Your task to perform on an android device: toggle translation in the chrome app Image 0: 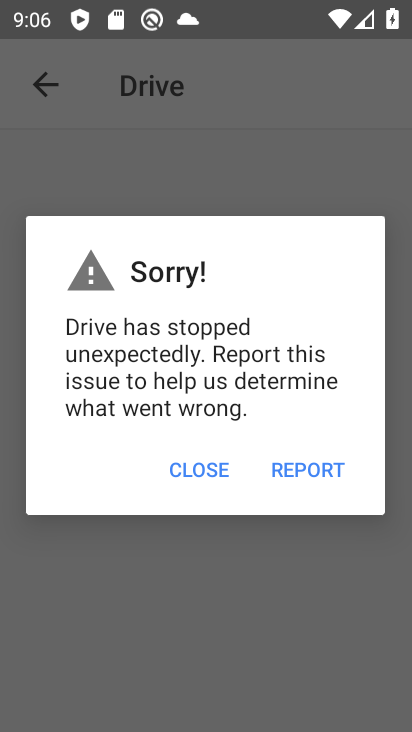
Step 0: press home button
Your task to perform on an android device: toggle translation in the chrome app Image 1: 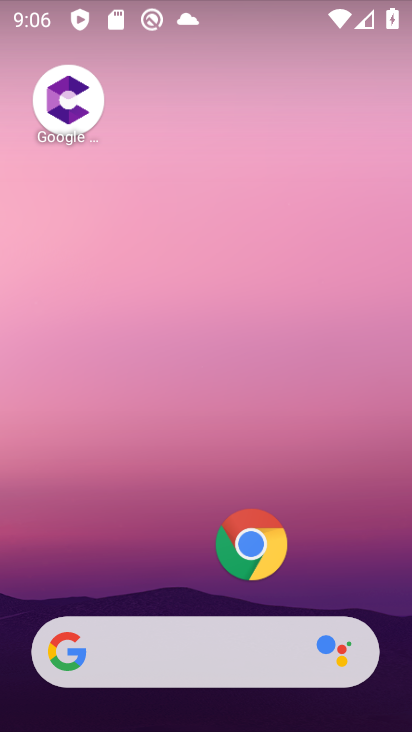
Step 1: click (257, 545)
Your task to perform on an android device: toggle translation in the chrome app Image 2: 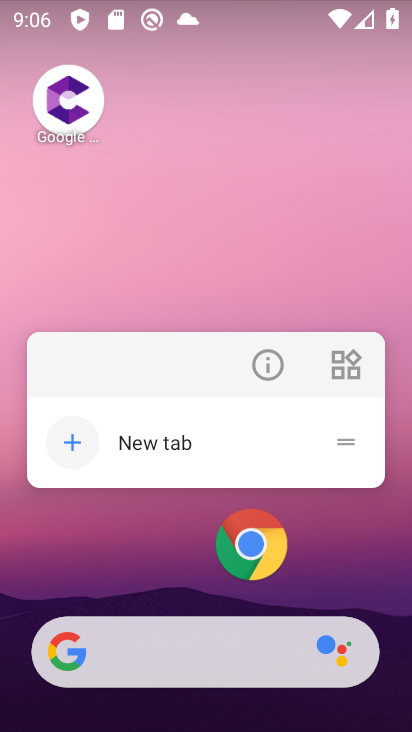
Step 2: click (255, 555)
Your task to perform on an android device: toggle translation in the chrome app Image 3: 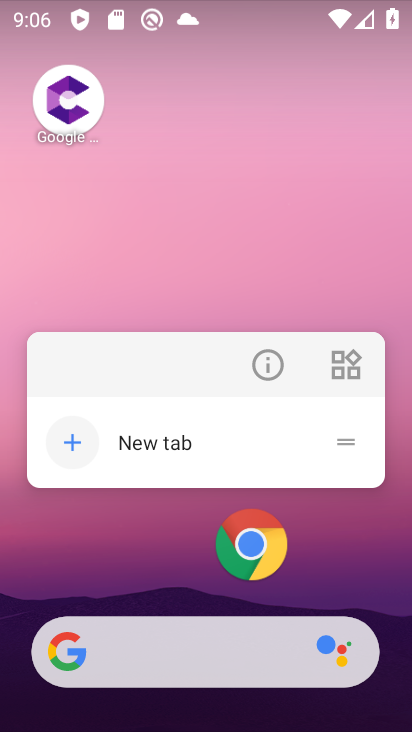
Step 3: click (246, 549)
Your task to perform on an android device: toggle translation in the chrome app Image 4: 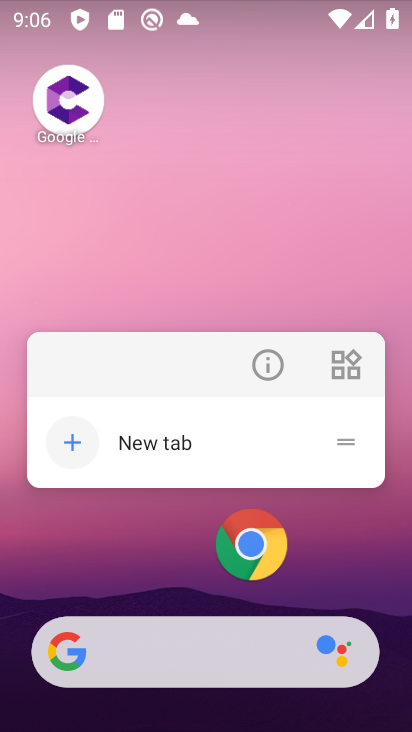
Step 4: click (245, 543)
Your task to perform on an android device: toggle translation in the chrome app Image 5: 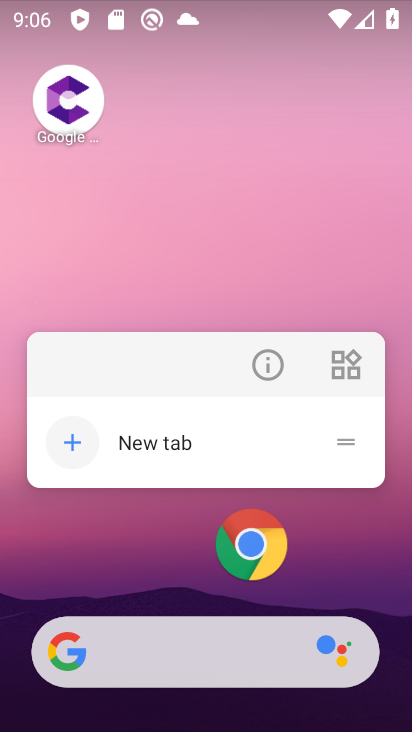
Step 5: click (245, 543)
Your task to perform on an android device: toggle translation in the chrome app Image 6: 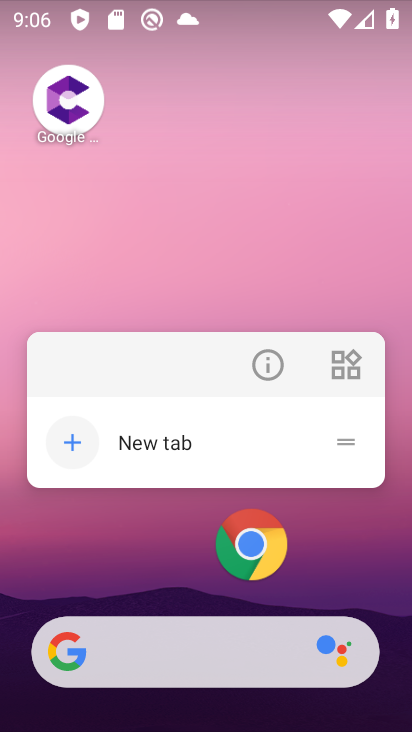
Step 6: click (256, 552)
Your task to perform on an android device: toggle translation in the chrome app Image 7: 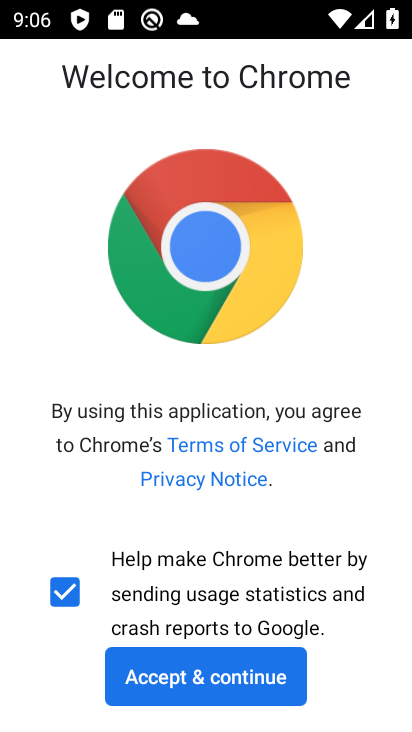
Step 7: click (224, 678)
Your task to perform on an android device: toggle translation in the chrome app Image 8: 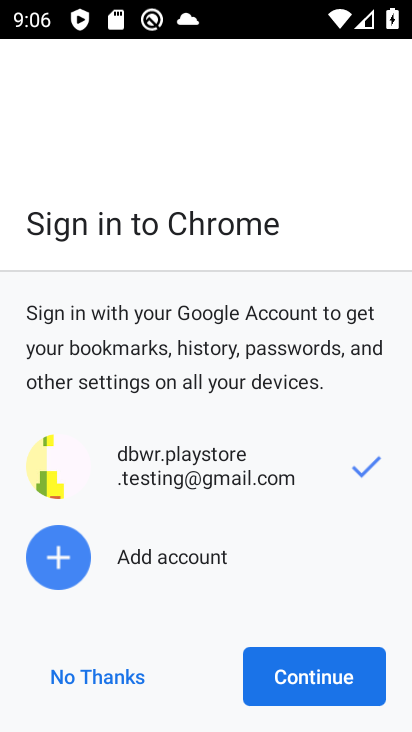
Step 8: click (302, 671)
Your task to perform on an android device: toggle translation in the chrome app Image 9: 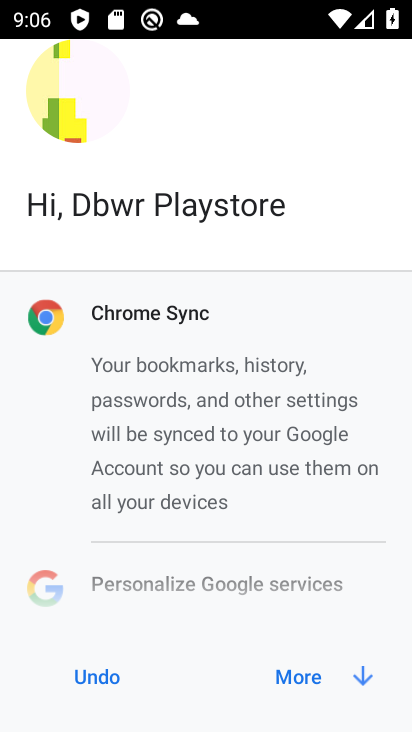
Step 9: click (305, 680)
Your task to perform on an android device: toggle translation in the chrome app Image 10: 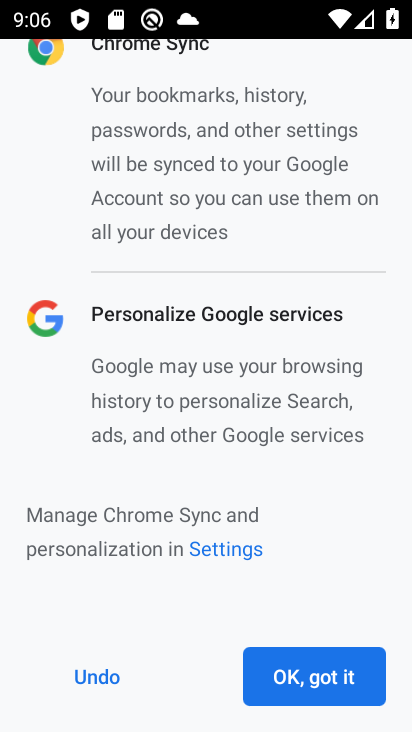
Step 10: click (305, 680)
Your task to perform on an android device: toggle translation in the chrome app Image 11: 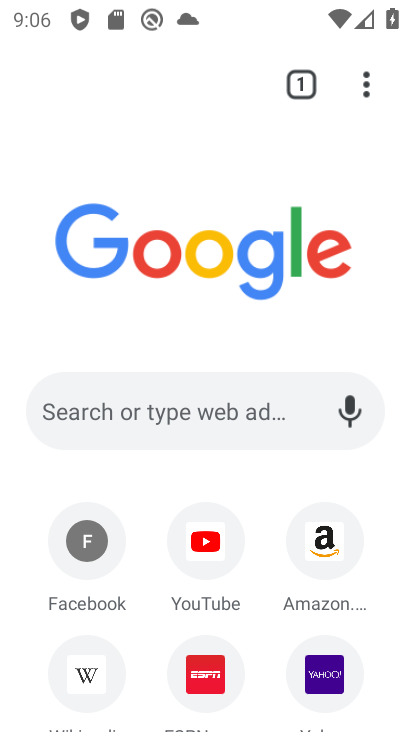
Step 11: click (360, 80)
Your task to perform on an android device: toggle translation in the chrome app Image 12: 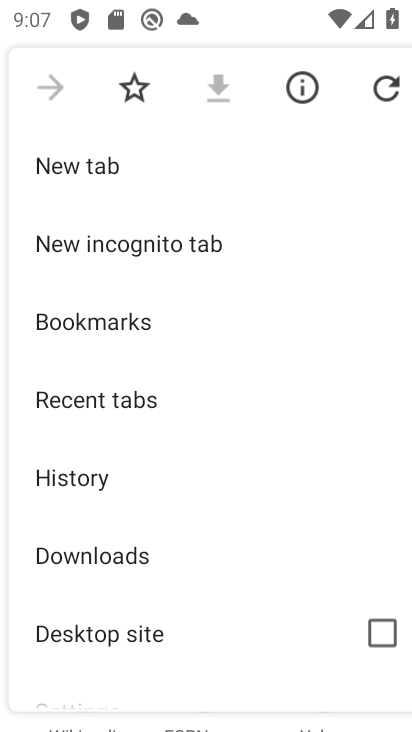
Step 12: drag from (231, 678) to (196, 288)
Your task to perform on an android device: toggle translation in the chrome app Image 13: 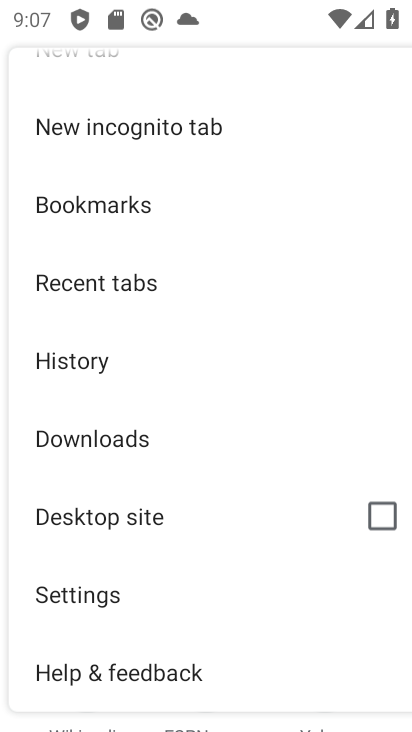
Step 13: click (92, 593)
Your task to perform on an android device: toggle translation in the chrome app Image 14: 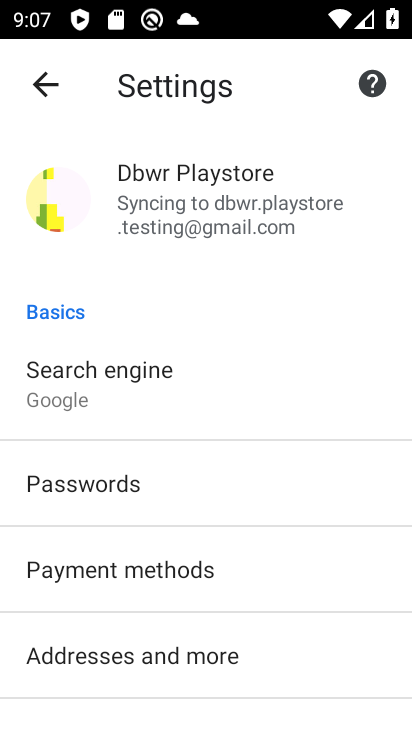
Step 14: drag from (109, 671) to (121, 354)
Your task to perform on an android device: toggle translation in the chrome app Image 15: 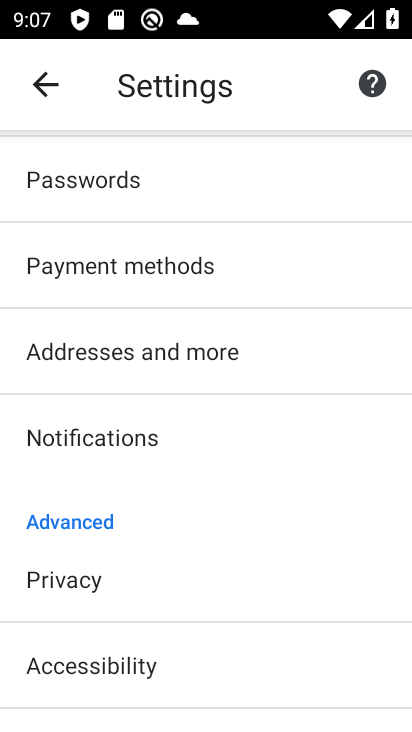
Step 15: drag from (103, 703) to (131, 442)
Your task to perform on an android device: toggle translation in the chrome app Image 16: 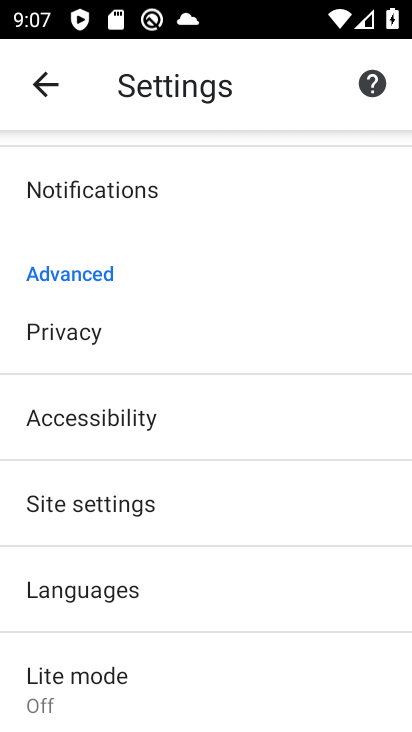
Step 16: click (84, 589)
Your task to perform on an android device: toggle translation in the chrome app Image 17: 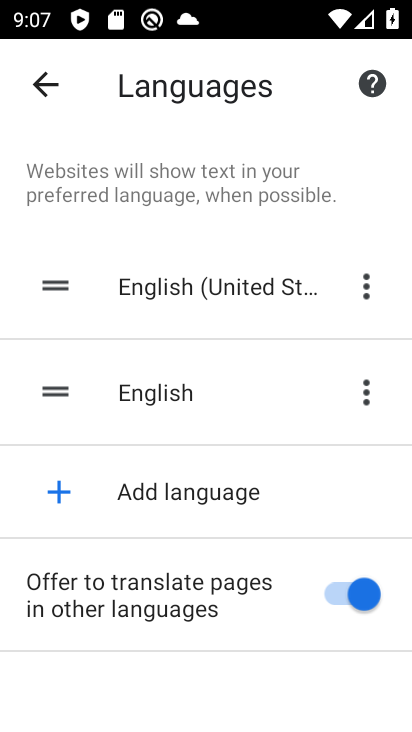
Step 17: click (333, 587)
Your task to perform on an android device: toggle translation in the chrome app Image 18: 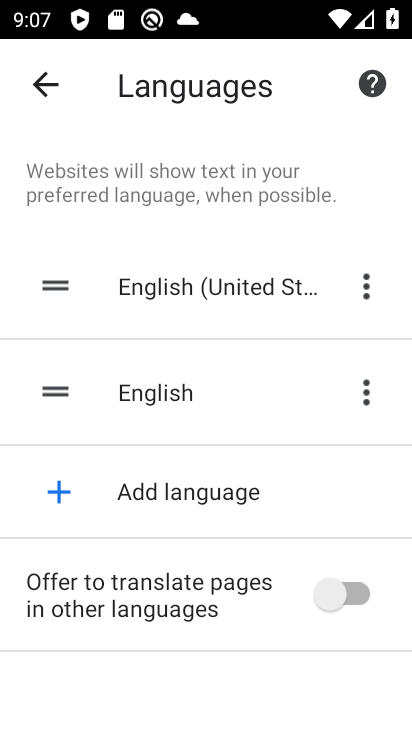
Step 18: task complete